Your task to perform on an android device: uninstall "Move to iOS" Image 0: 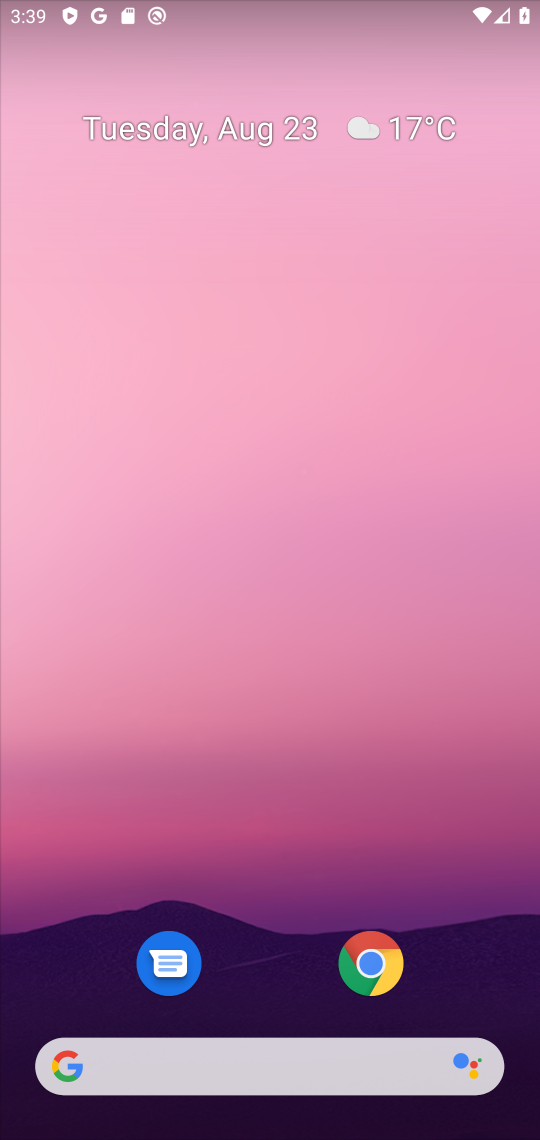
Step 0: drag from (286, 564) to (381, 105)
Your task to perform on an android device: uninstall "Move to iOS" Image 1: 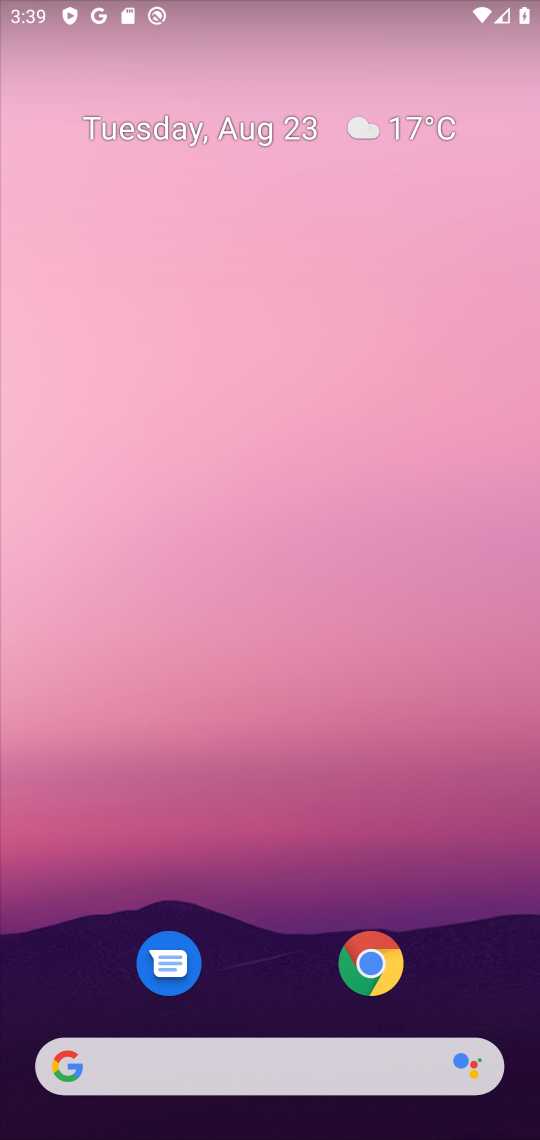
Step 1: drag from (296, 849) to (302, 28)
Your task to perform on an android device: uninstall "Move to iOS" Image 2: 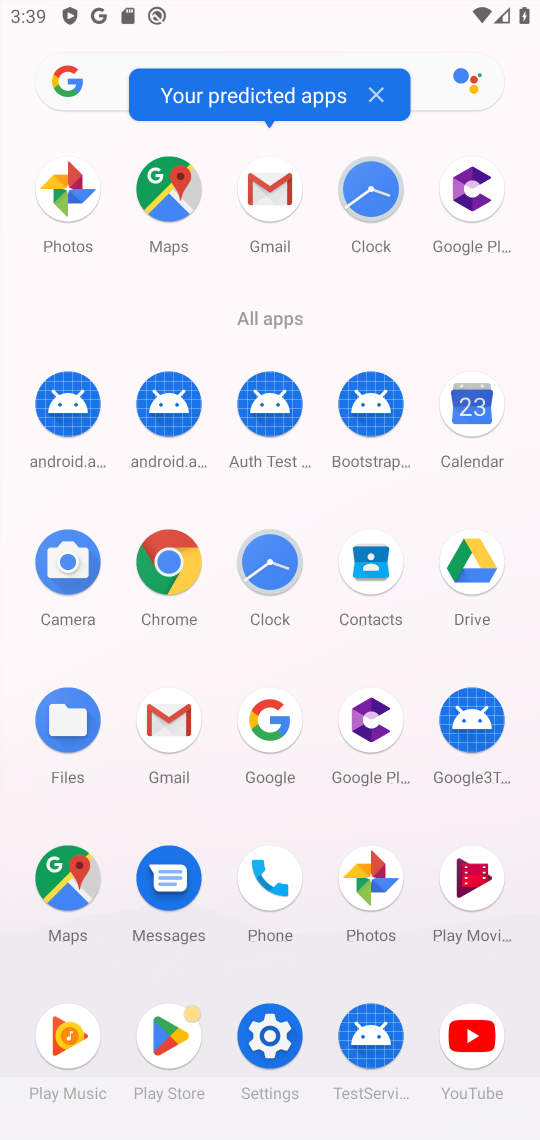
Step 2: click (165, 1019)
Your task to perform on an android device: uninstall "Move to iOS" Image 3: 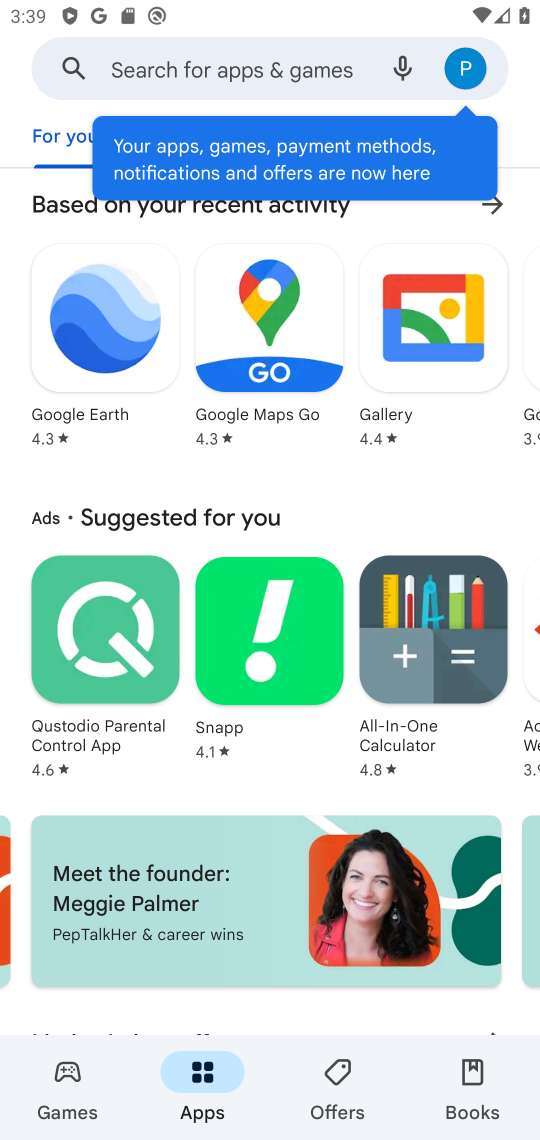
Step 3: click (253, 66)
Your task to perform on an android device: uninstall "Move to iOS" Image 4: 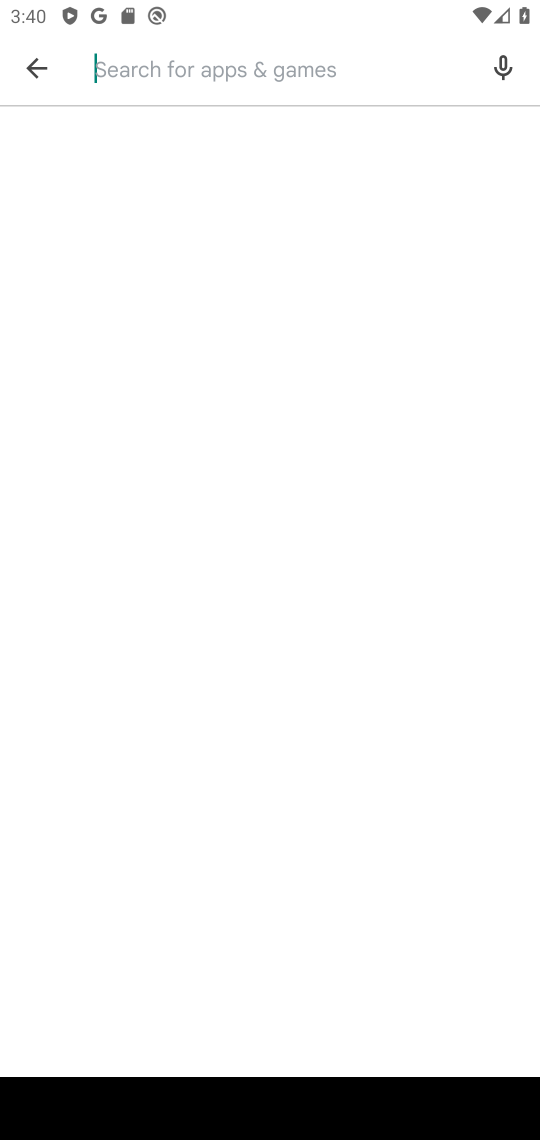
Step 4: type "Move to iOS"
Your task to perform on an android device: uninstall "Move to iOS" Image 5: 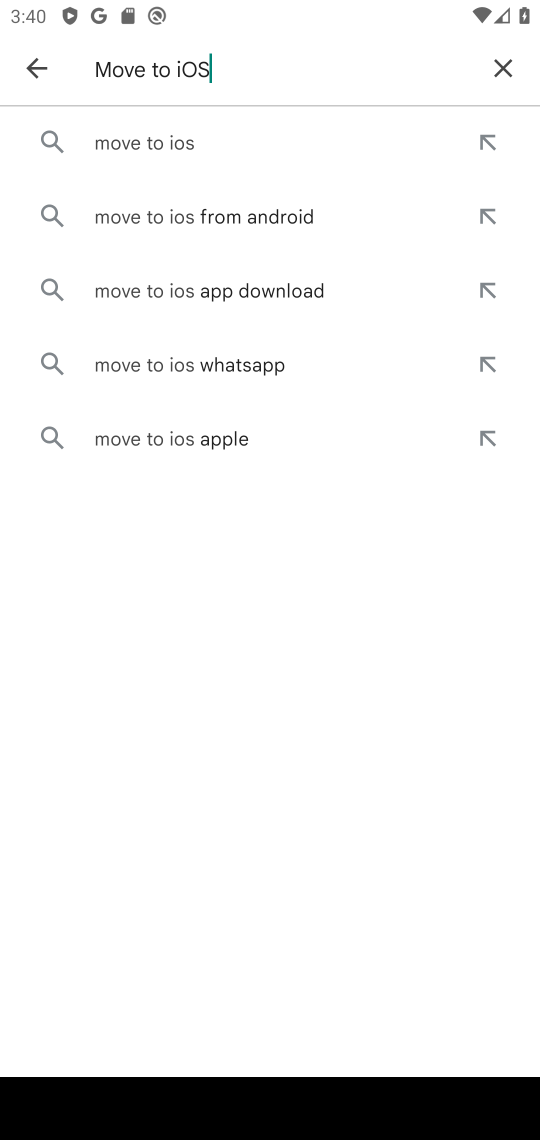
Step 5: click (144, 138)
Your task to perform on an android device: uninstall "Move to iOS" Image 6: 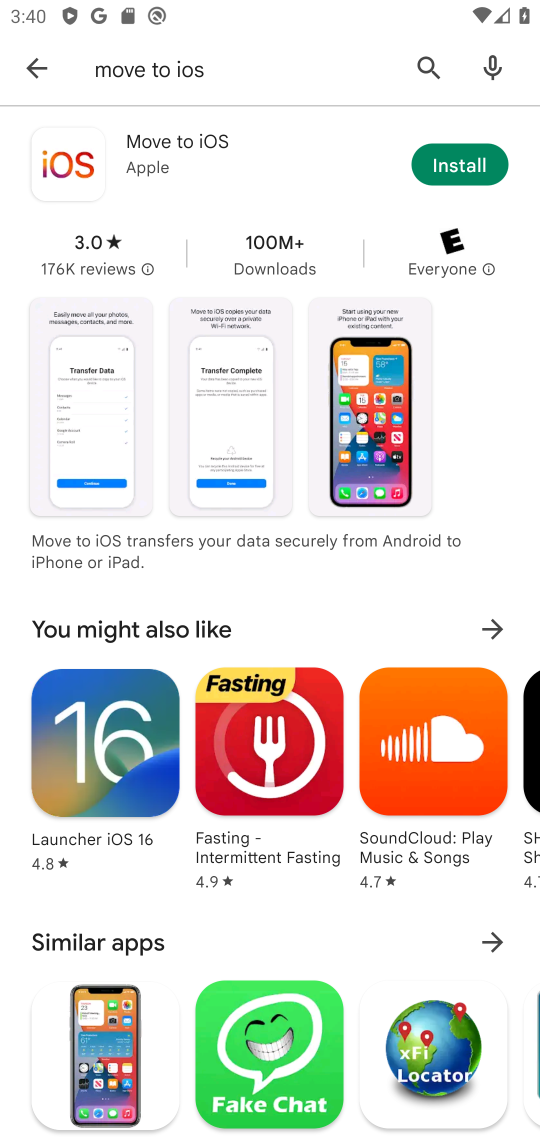
Step 6: click (444, 146)
Your task to perform on an android device: uninstall "Move to iOS" Image 7: 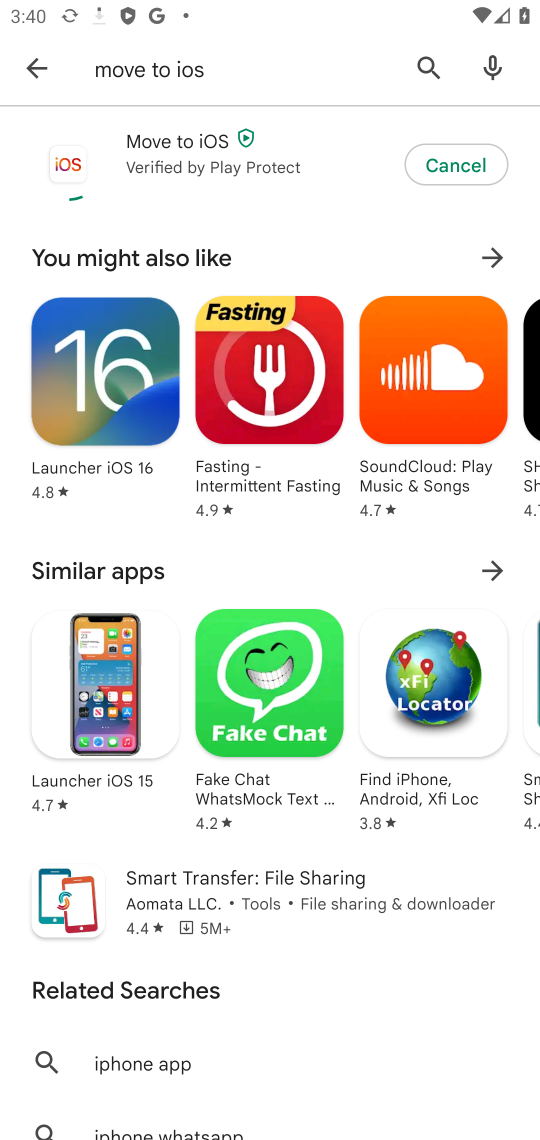
Step 7: click (455, 158)
Your task to perform on an android device: uninstall "Move to iOS" Image 8: 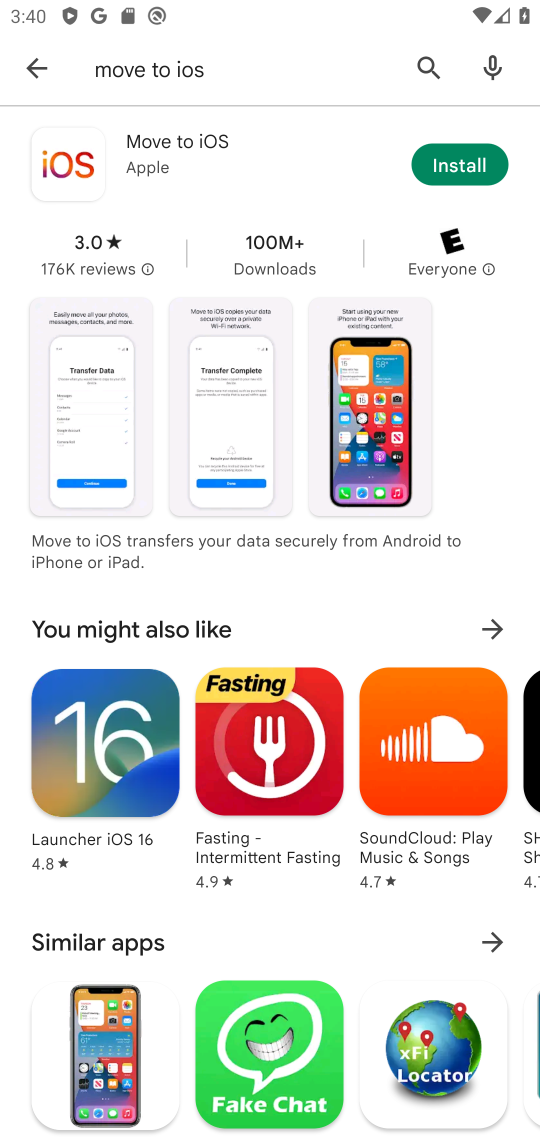
Step 8: task complete